Your task to perform on an android device: What's the weather? Image 0: 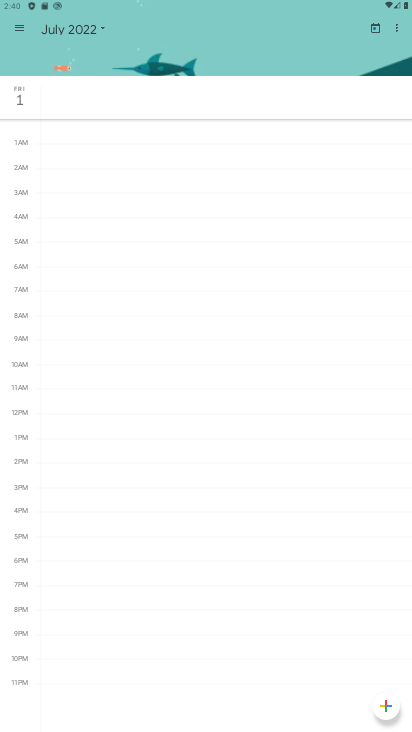
Step 0: press home button
Your task to perform on an android device: What's the weather? Image 1: 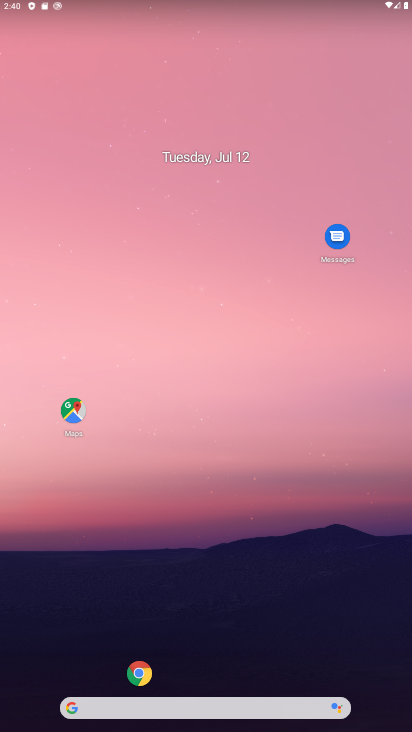
Step 1: click (128, 664)
Your task to perform on an android device: What's the weather? Image 2: 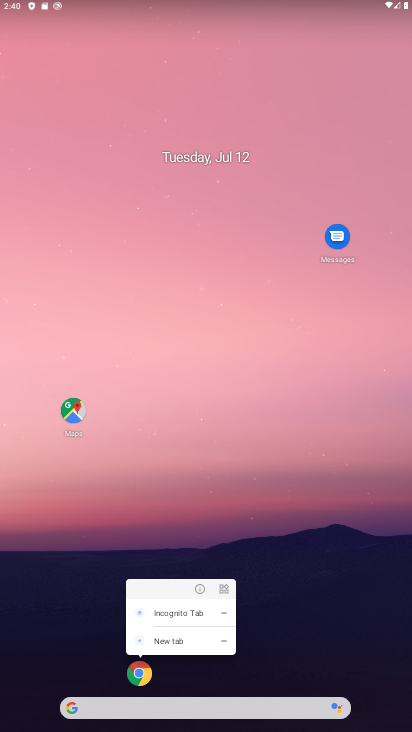
Step 2: click (135, 684)
Your task to perform on an android device: What's the weather? Image 3: 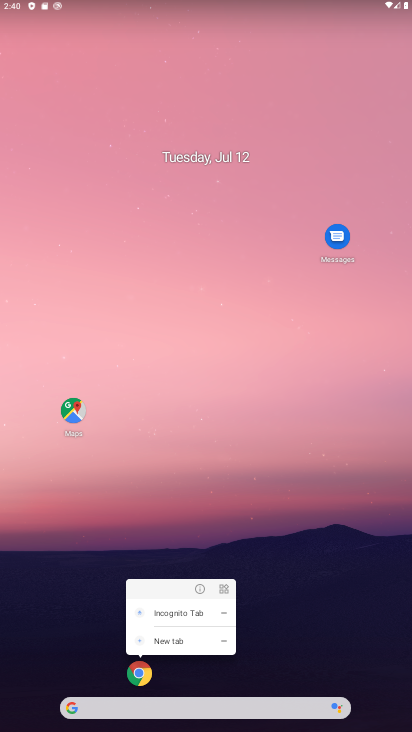
Step 3: click (153, 670)
Your task to perform on an android device: What's the weather? Image 4: 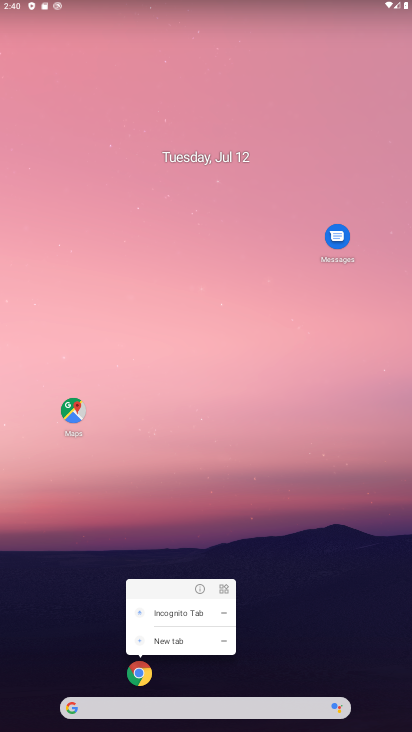
Step 4: click (126, 684)
Your task to perform on an android device: What's the weather? Image 5: 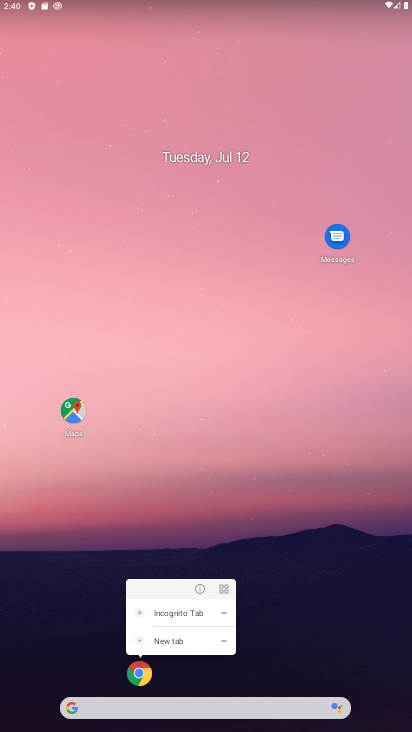
Step 5: click (133, 673)
Your task to perform on an android device: What's the weather? Image 6: 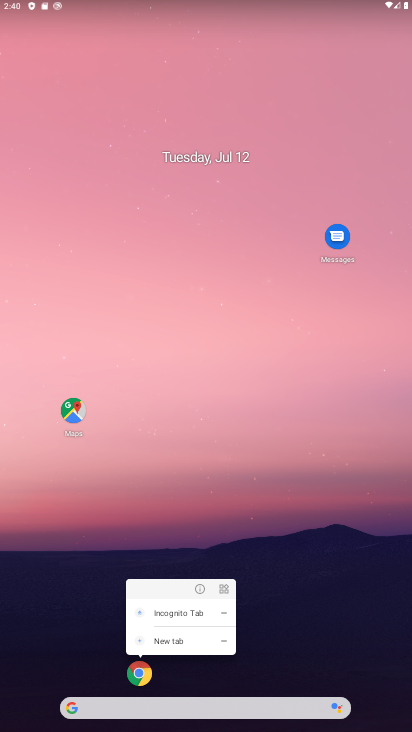
Step 6: click (138, 668)
Your task to perform on an android device: What's the weather? Image 7: 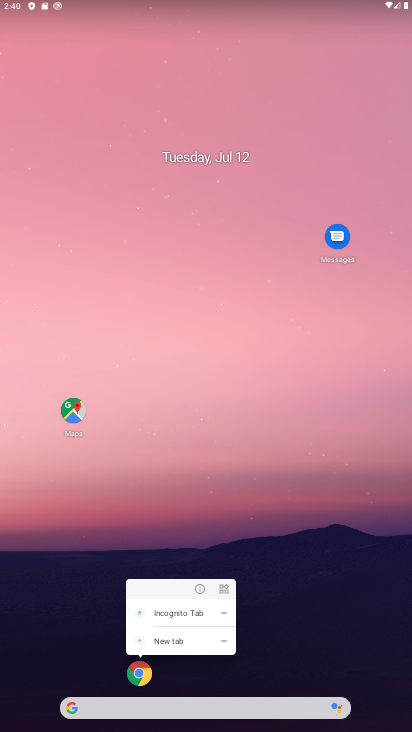
Step 7: task complete